Your task to perform on an android device: Toggle the flashlight Image 0: 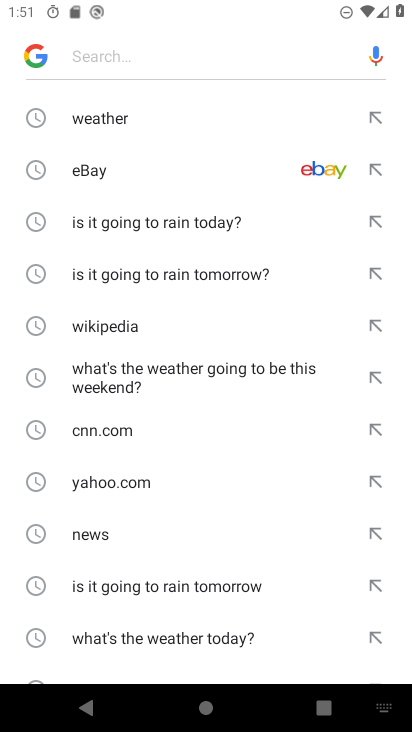
Step 0: press home button
Your task to perform on an android device: Toggle the flashlight Image 1: 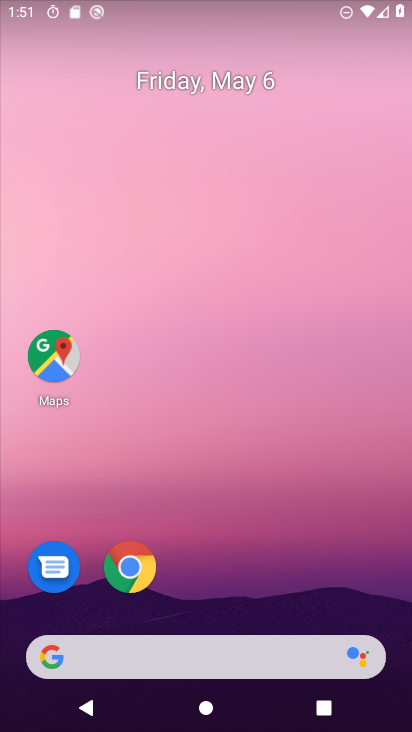
Step 1: task complete